Your task to perform on an android device: What's the weather going to be this weekend? Image 0: 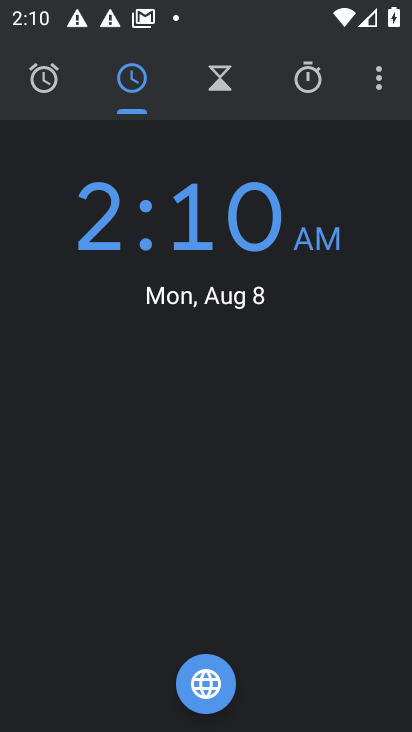
Step 0: press home button
Your task to perform on an android device: What's the weather going to be this weekend? Image 1: 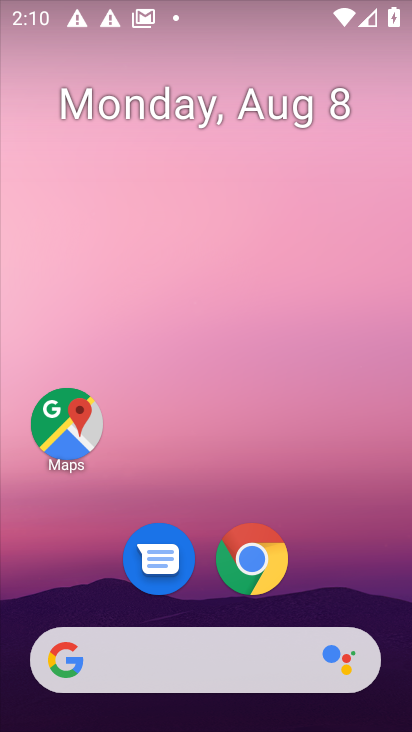
Step 1: drag from (188, 658) to (202, 218)
Your task to perform on an android device: What's the weather going to be this weekend? Image 2: 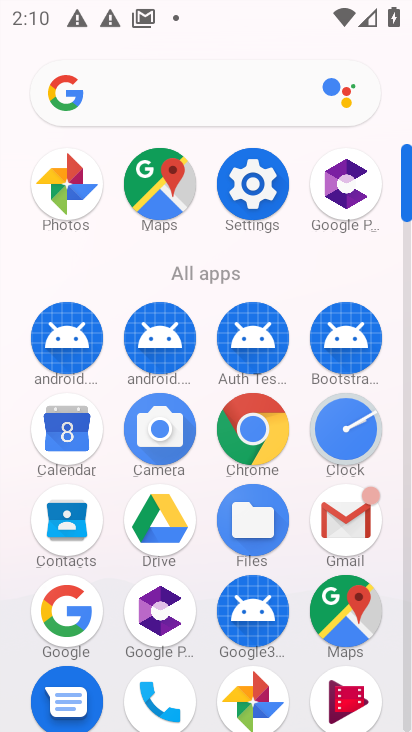
Step 2: click (62, 613)
Your task to perform on an android device: What's the weather going to be this weekend? Image 3: 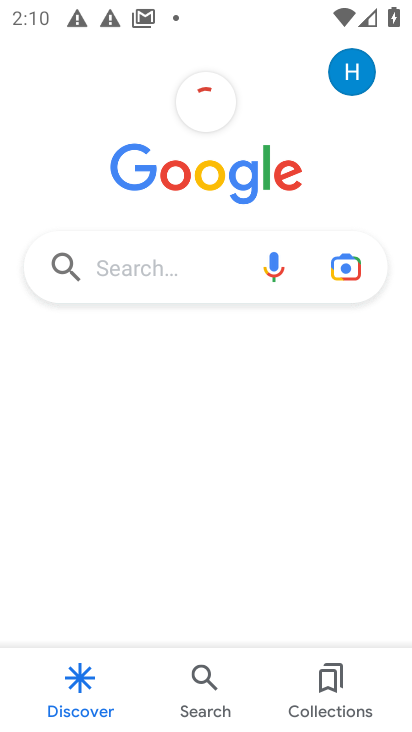
Step 3: click (162, 269)
Your task to perform on an android device: What's the weather going to be this weekend? Image 4: 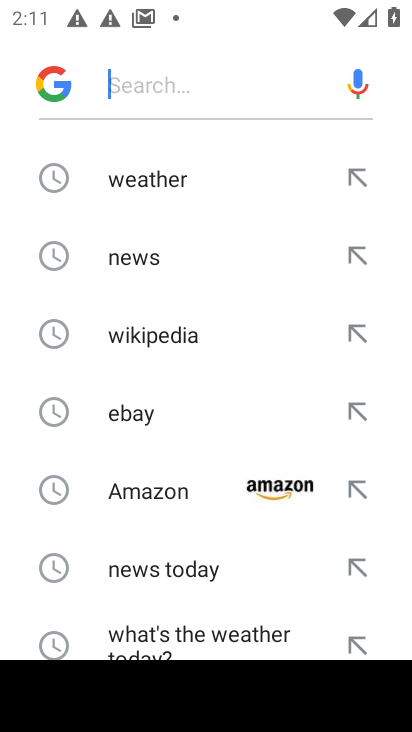
Step 4: type "What's the weather going to be this weekend?"
Your task to perform on an android device: What's the weather going to be this weekend? Image 5: 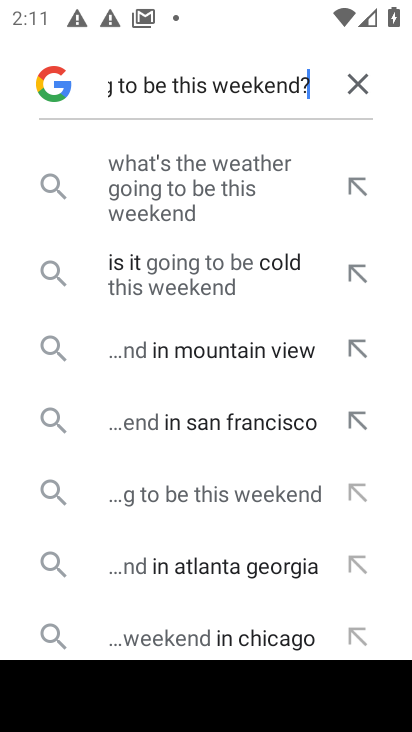
Step 5: click (231, 194)
Your task to perform on an android device: What's the weather going to be this weekend? Image 6: 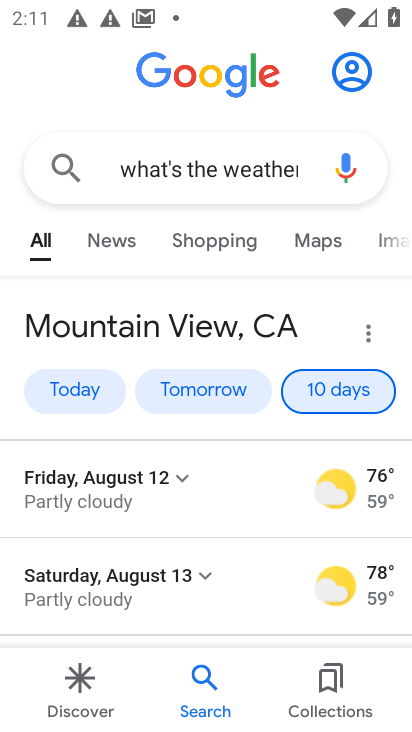
Step 6: task complete